Your task to perform on an android device: change the clock display to analog Image 0: 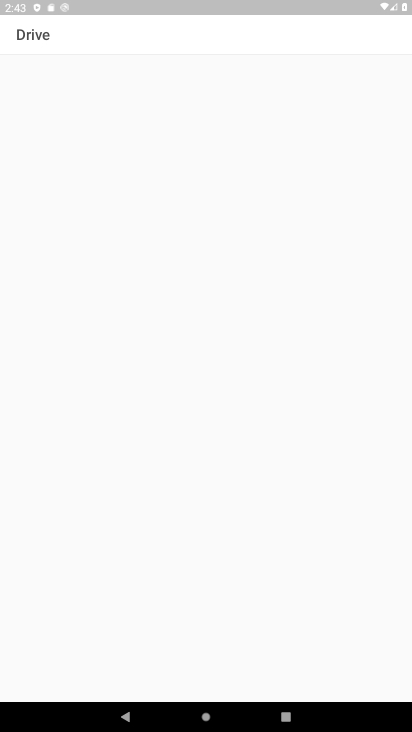
Step 0: drag from (64, 554) to (167, 105)
Your task to perform on an android device: change the clock display to analog Image 1: 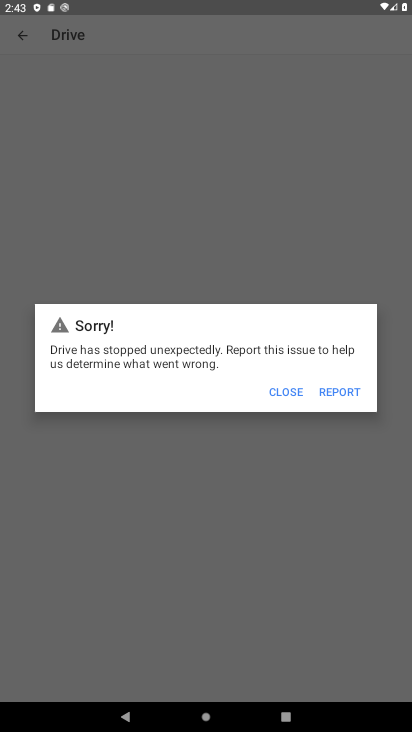
Step 1: press home button
Your task to perform on an android device: change the clock display to analog Image 2: 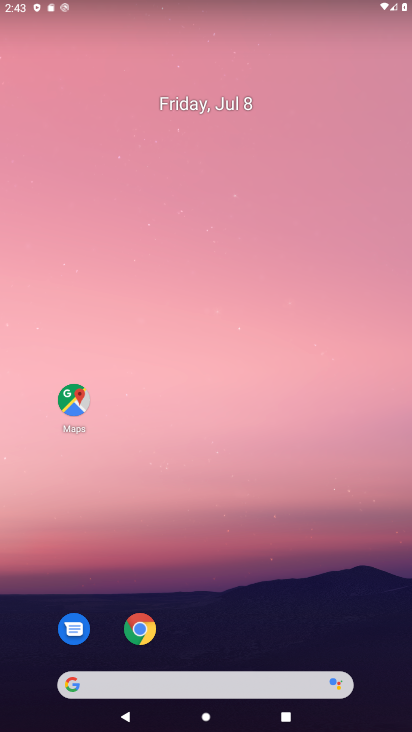
Step 2: drag from (260, 365) to (281, 139)
Your task to perform on an android device: change the clock display to analog Image 3: 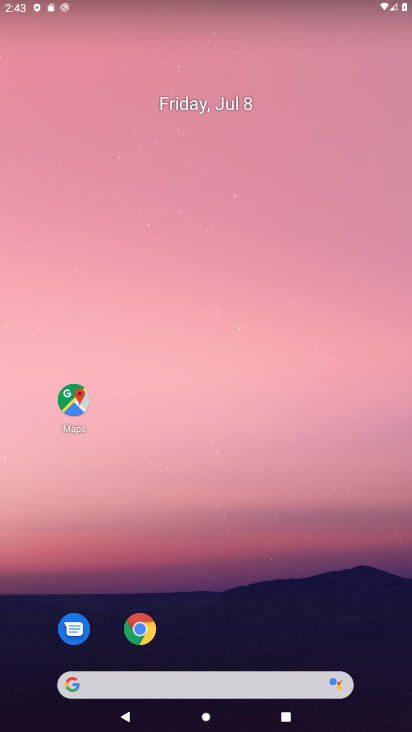
Step 3: drag from (44, 707) to (0, 160)
Your task to perform on an android device: change the clock display to analog Image 4: 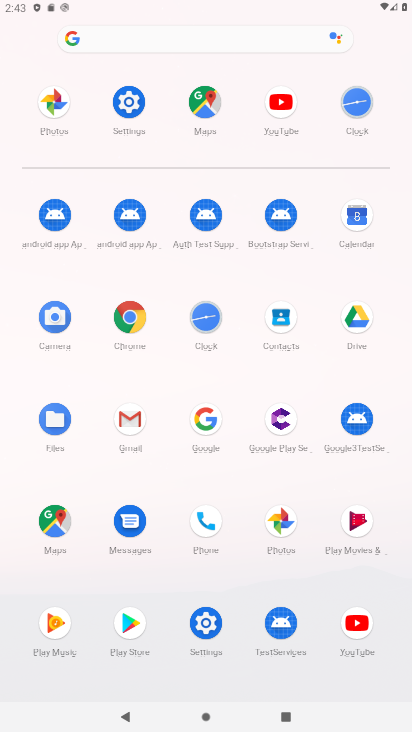
Step 4: click (208, 334)
Your task to perform on an android device: change the clock display to analog Image 5: 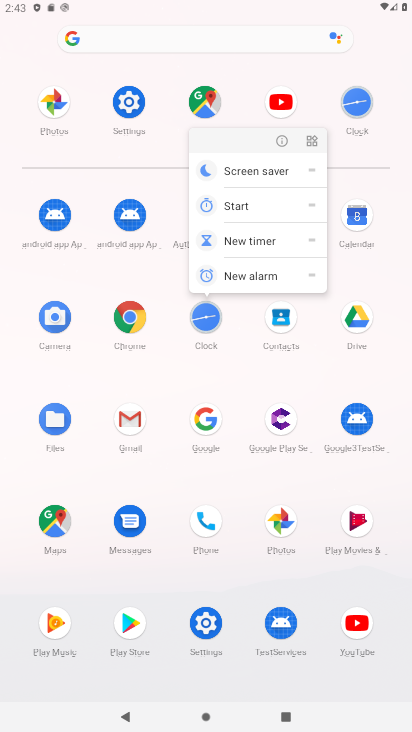
Step 5: click (210, 321)
Your task to perform on an android device: change the clock display to analog Image 6: 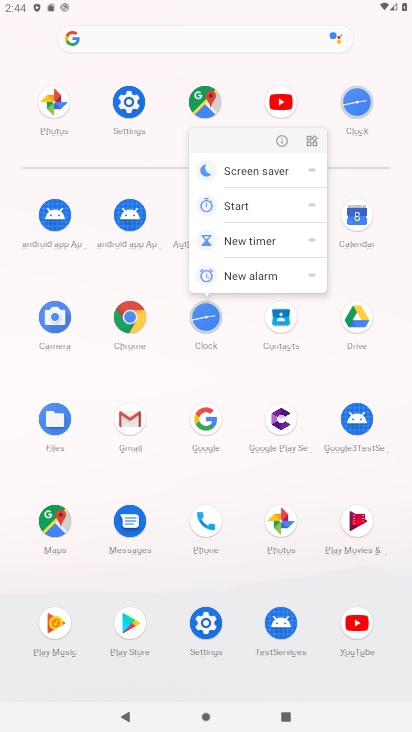
Step 6: click (199, 326)
Your task to perform on an android device: change the clock display to analog Image 7: 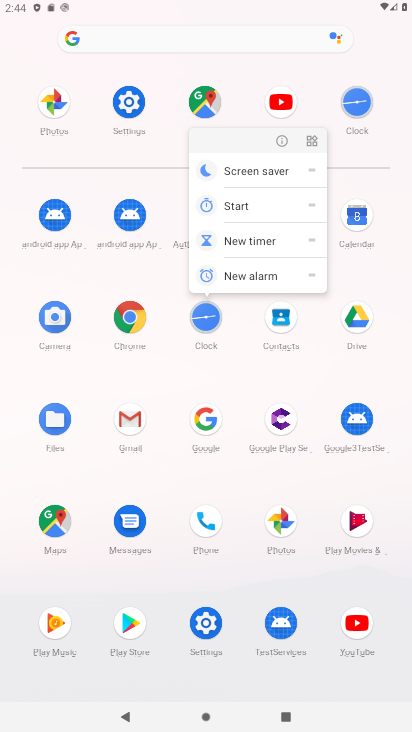
Step 7: click (206, 318)
Your task to perform on an android device: change the clock display to analog Image 8: 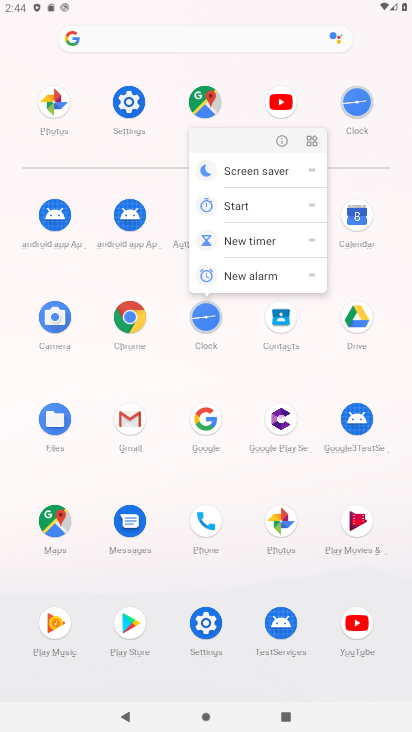
Step 8: click (177, 322)
Your task to perform on an android device: change the clock display to analog Image 9: 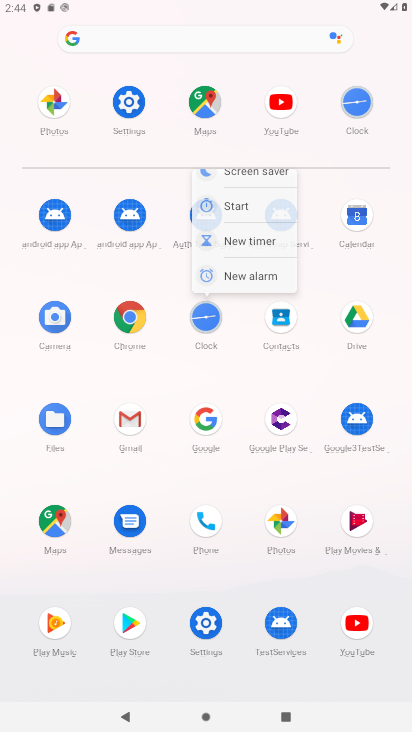
Step 9: click (205, 318)
Your task to perform on an android device: change the clock display to analog Image 10: 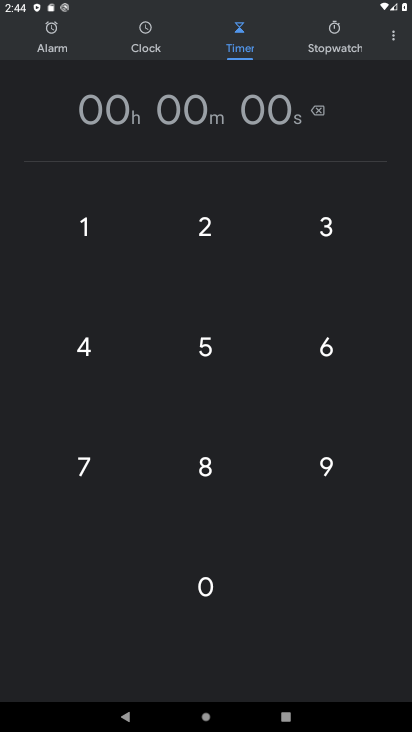
Step 10: click (388, 34)
Your task to perform on an android device: change the clock display to analog Image 11: 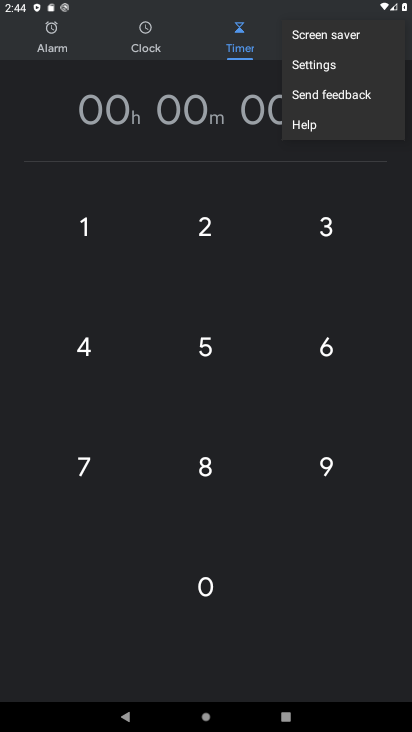
Step 11: click (151, 41)
Your task to perform on an android device: change the clock display to analog Image 12: 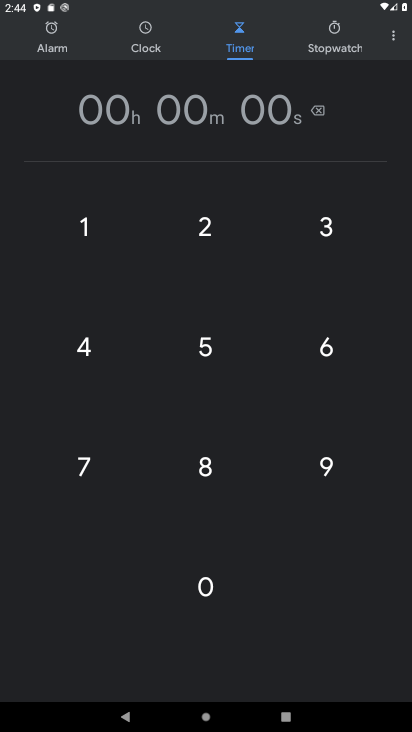
Step 12: click (139, 34)
Your task to perform on an android device: change the clock display to analog Image 13: 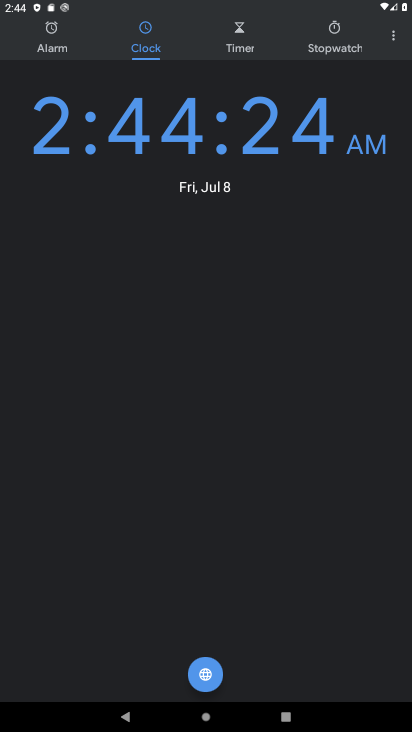
Step 13: click (396, 37)
Your task to perform on an android device: change the clock display to analog Image 14: 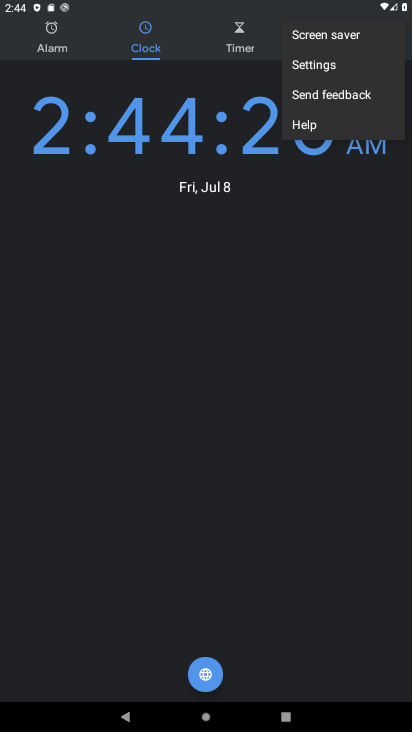
Step 14: click (318, 69)
Your task to perform on an android device: change the clock display to analog Image 15: 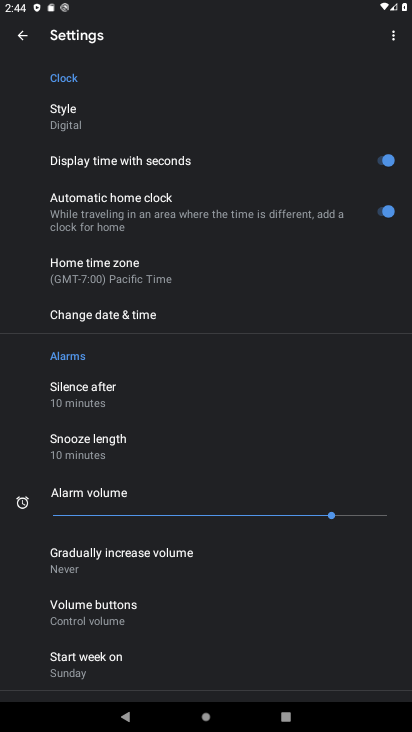
Step 15: click (92, 119)
Your task to perform on an android device: change the clock display to analog Image 16: 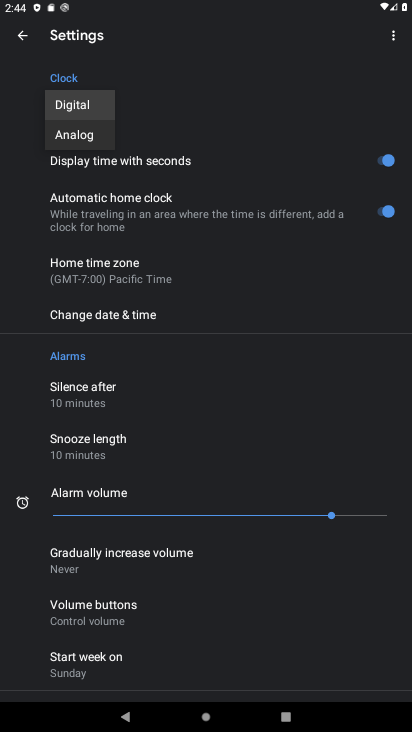
Step 16: click (90, 124)
Your task to perform on an android device: change the clock display to analog Image 17: 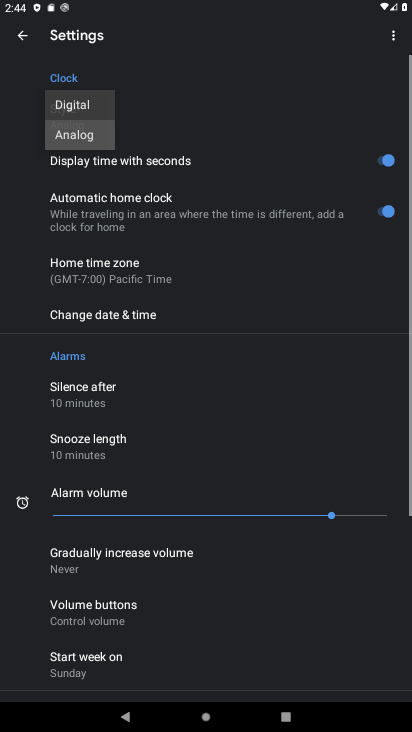
Step 17: click (88, 132)
Your task to perform on an android device: change the clock display to analog Image 18: 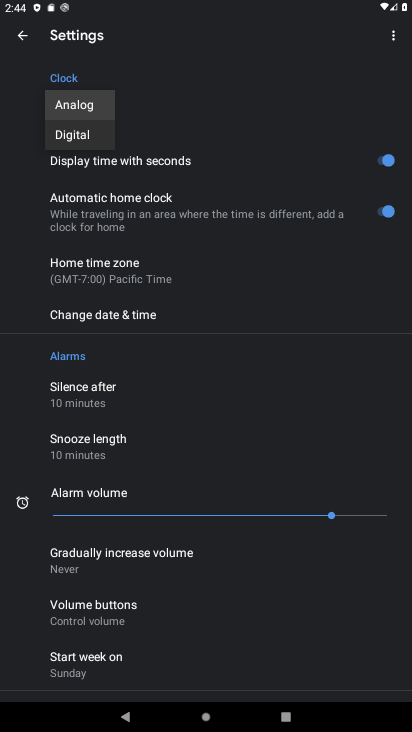
Step 18: click (76, 107)
Your task to perform on an android device: change the clock display to analog Image 19: 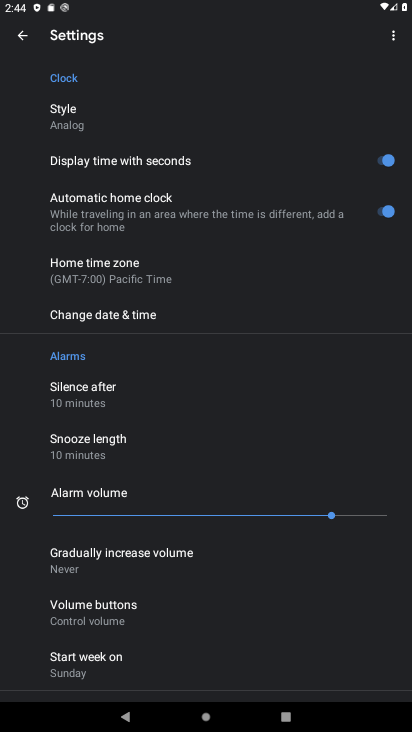
Step 19: task complete